Your task to perform on an android device: see sites visited before in the chrome app Image 0: 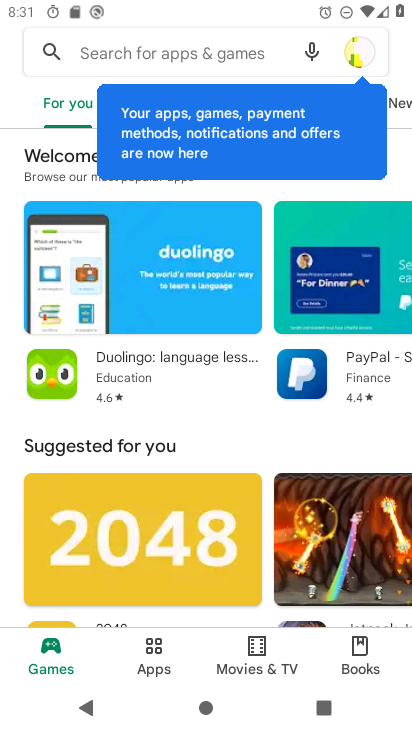
Step 0: press home button
Your task to perform on an android device: see sites visited before in the chrome app Image 1: 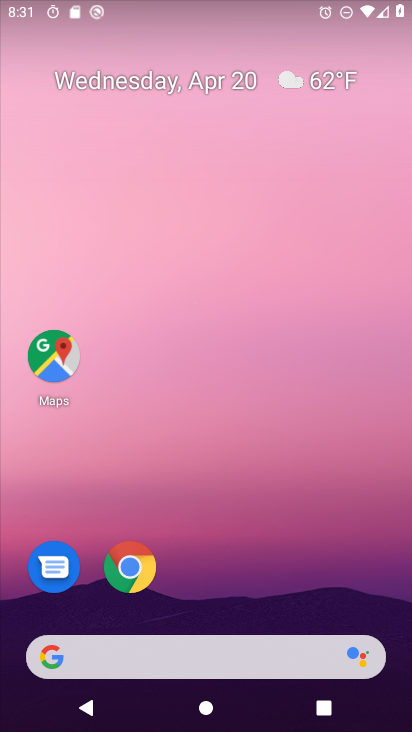
Step 1: click (130, 576)
Your task to perform on an android device: see sites visited before in the chrome app Image 2: 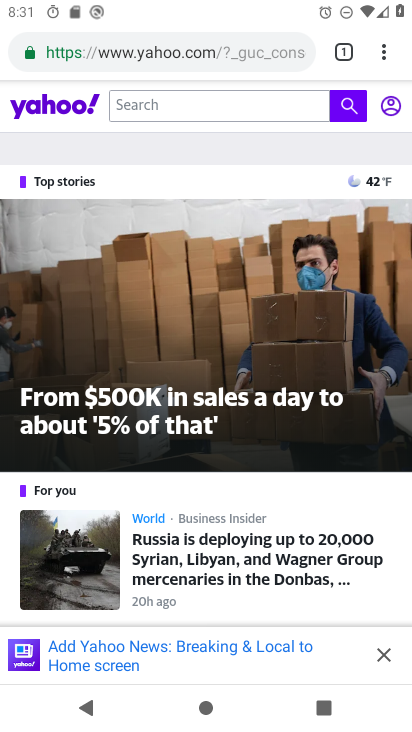
Step 2: click (384, 53)
Your task to perform on an android device: see sites visited before in the chrome app Image 3: 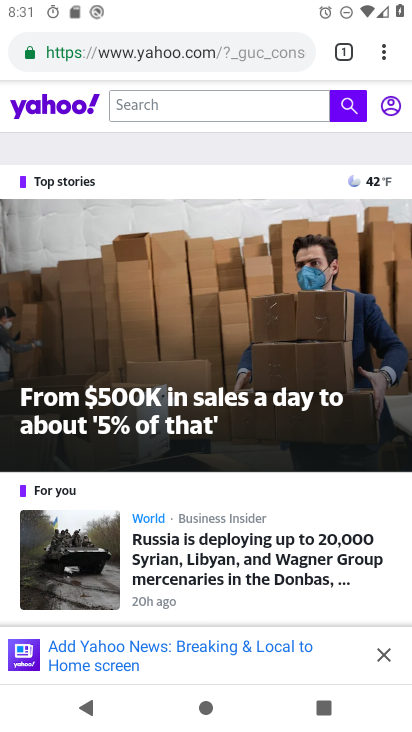
Step 3: click (386, 53)
Your task to perform on an android device: see sites visited before in the chrome app Image 4: 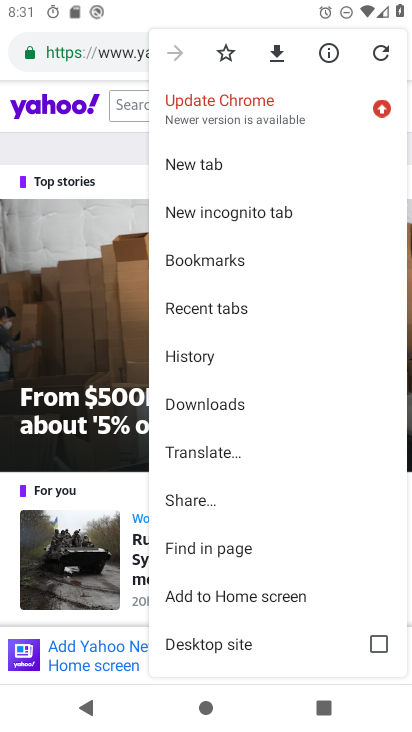
Step 4: click (185, 359)
Your task to perform on an android device: see sites visited before in the chrome app Image 5: 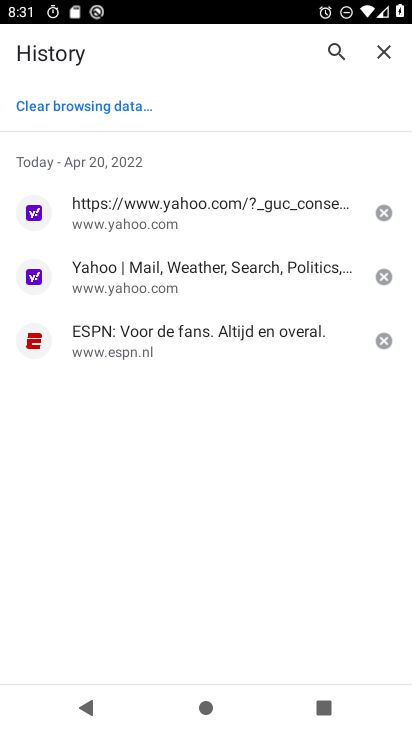
Step 5: task complete